Your task to perform on an android device: Is it going to rain today? Image 0: 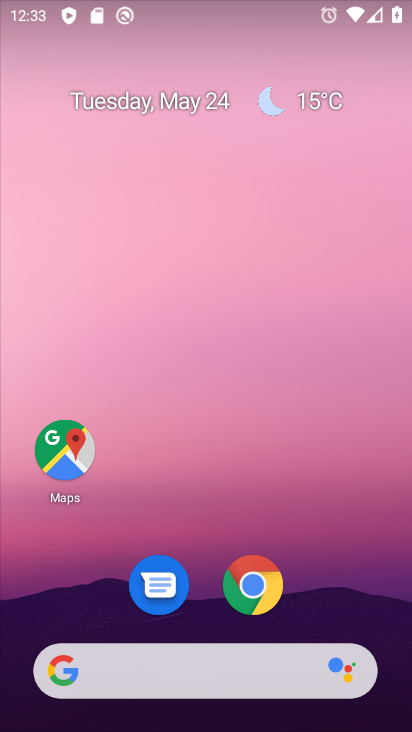
Step 0: click (247, 664)
Your task to perform on an android device: Is it going to rain today? Image 1: 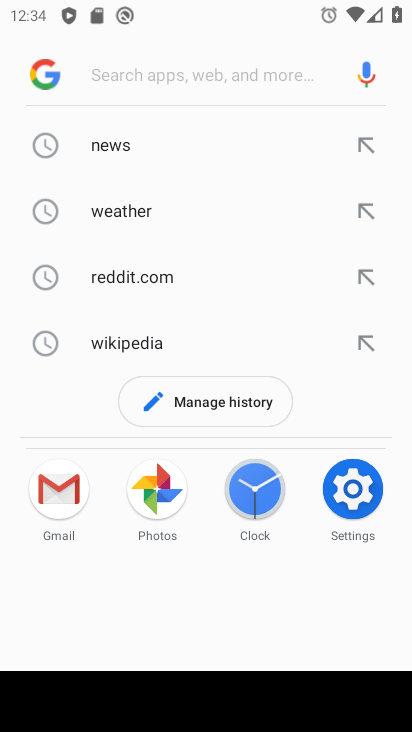
Step 1: click (119, 209)
Your task to perform on an android device: Is it going to rain today? Image 2: 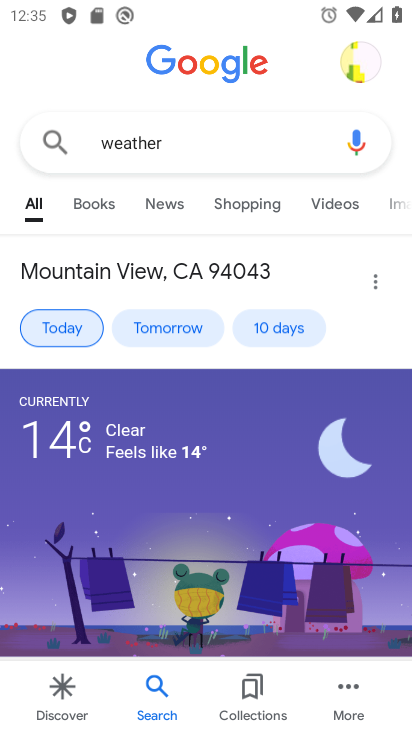
Step 2: drag from (253, 559) to (259, 263)
Your task to perform on an android device: Is it going to rain today? Image 3: 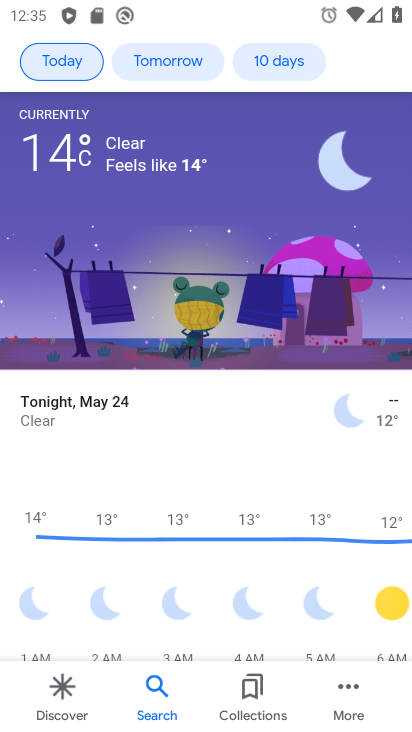
Step 3: drag from (230, 463) to (260, 171)
Your task to perform on an android device: Is it going to rain today? Image 4: 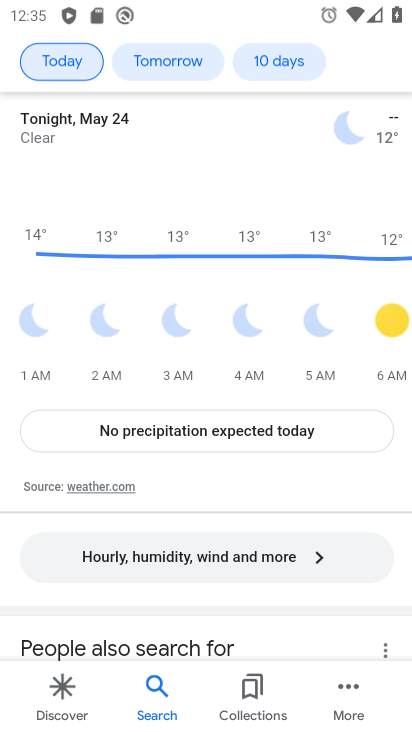
Step 4: drag from (241, 182) to (241, 600)
Your task to perform on an android device: Is it going to rain today? Image 5: 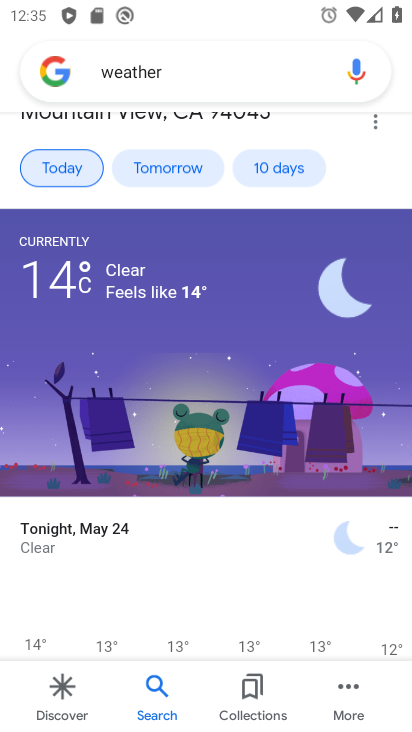
Step 5: click (64, 169)
Your task to perform on an android device: Is it going to rain today? Image 6: 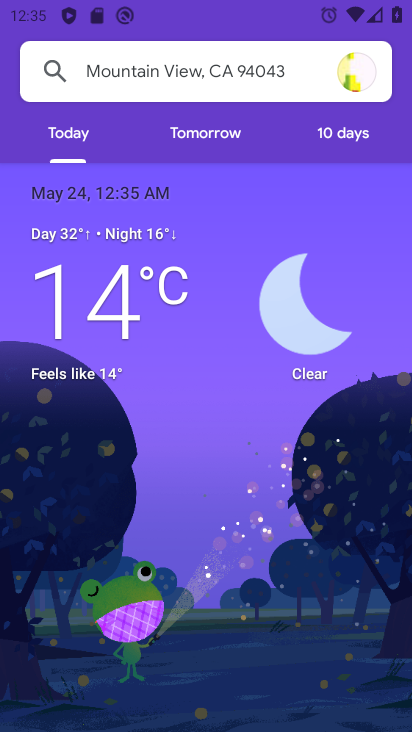
Step 6: task complete